Your task to perform on an android device: What's a good restaurant in Miami? Image 0: 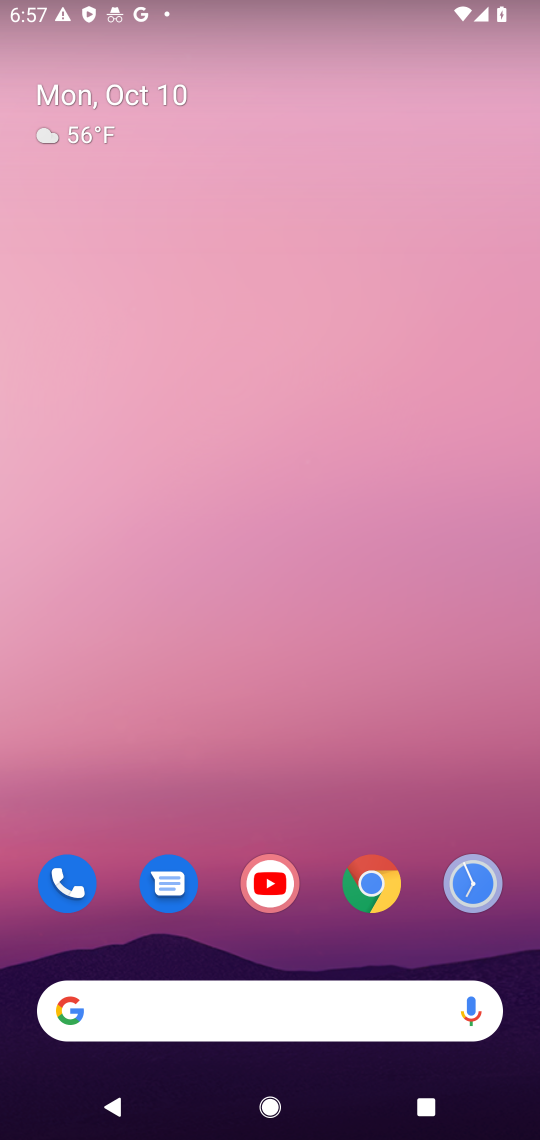
Step 0: drag from (371, 953) to (269, 548)
Your task to perform on an android device: What's a good restaurant in Miami? Image 1: 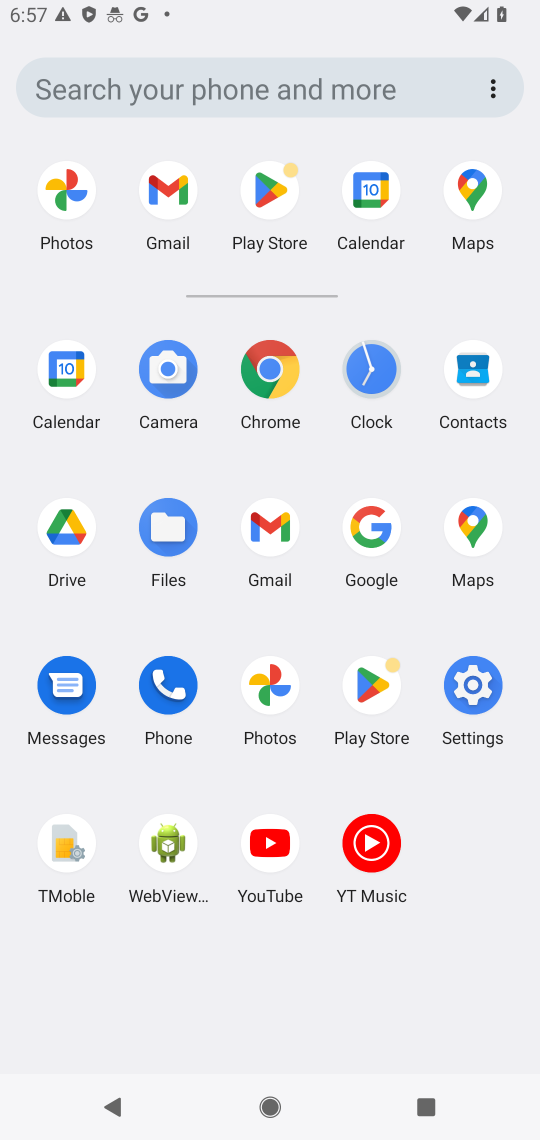
Step 1: click (369, 563)
Your task to perform on an android device: What's a good restaurant in Miami? Image 2: 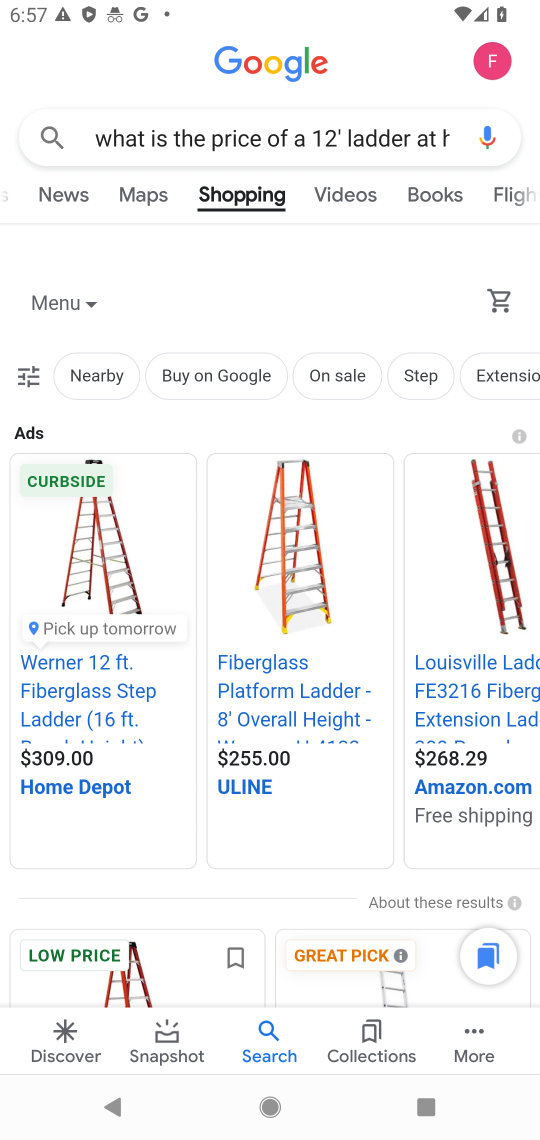
Step 2: click (343, 140)
Your task to perform on an android device: What's a good restaurant in Miami? Image 3: 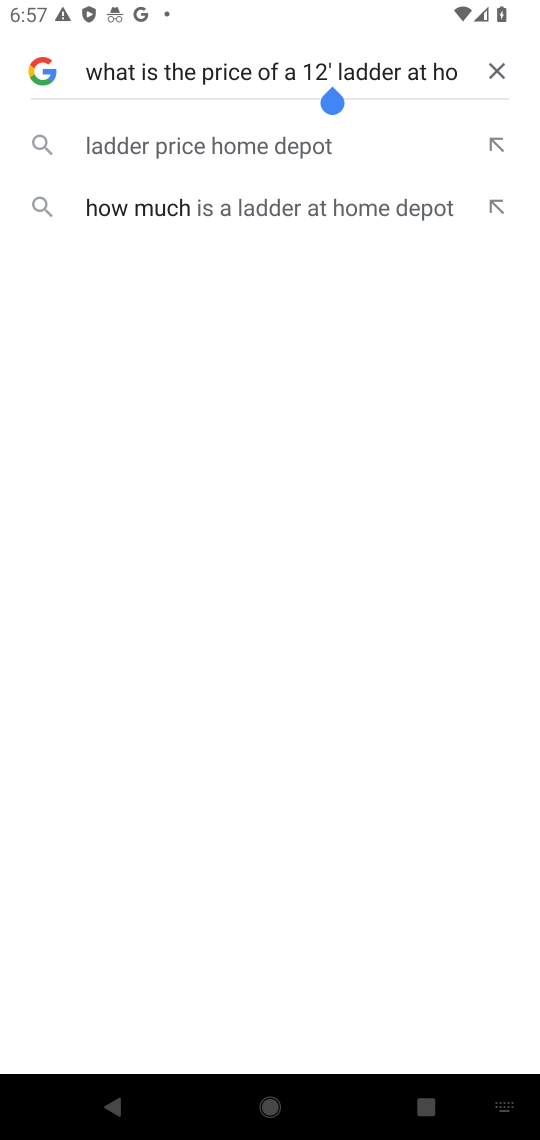
Step 3: click (504, 79)
Your task to perform on an android device: What's a good restaurant in Miami? Image 4: 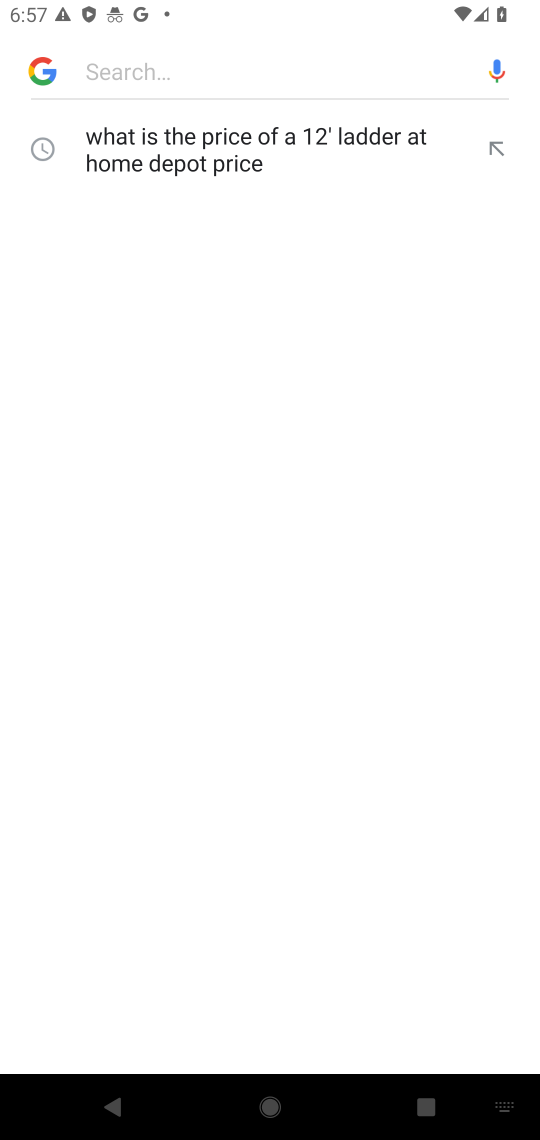
Step 4: type "good restaurant in Miami"
Your task to perform on an android device: What's a good restaurant in Miami? Image 5: 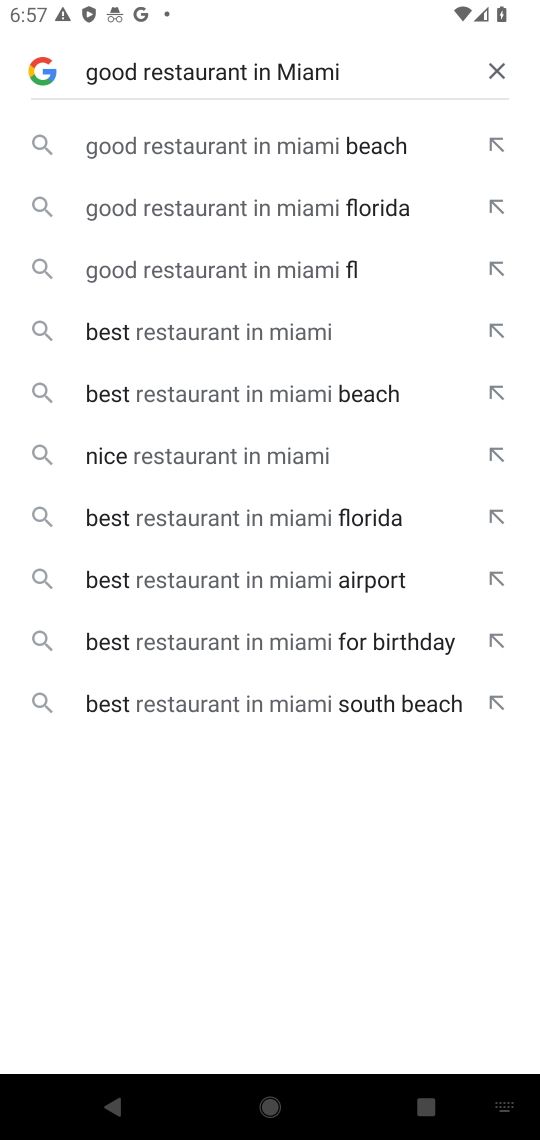
Step 5: click (325, 218)
Your task to perform on an android device: What's a good restaurant in Miami? Image 6: 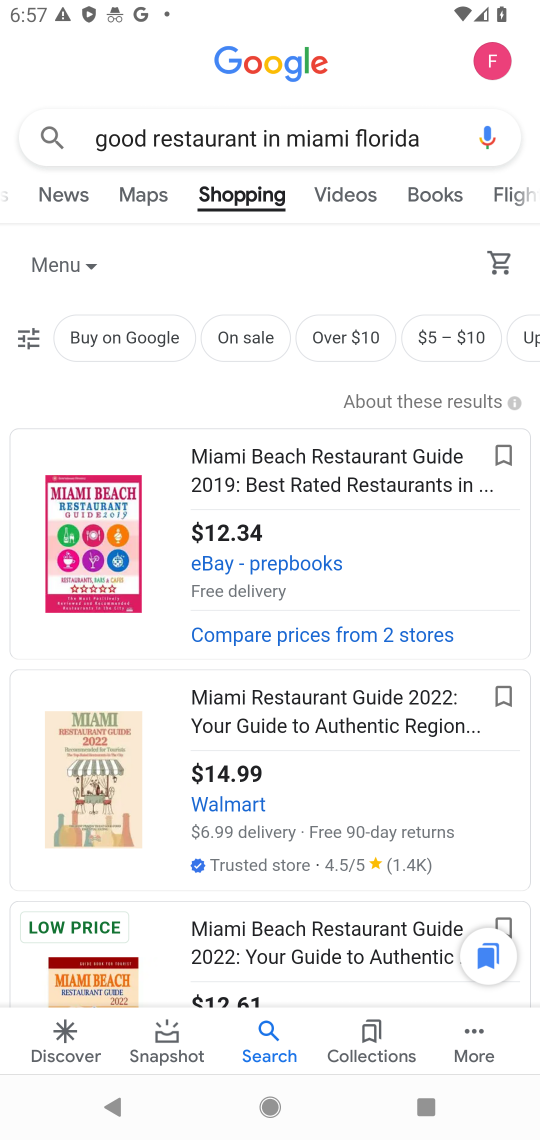
Step 6: drag from (78, 193) to (473, 232)
Your task to perform on an android device: What's a good restaurant in Miami? Image 7: 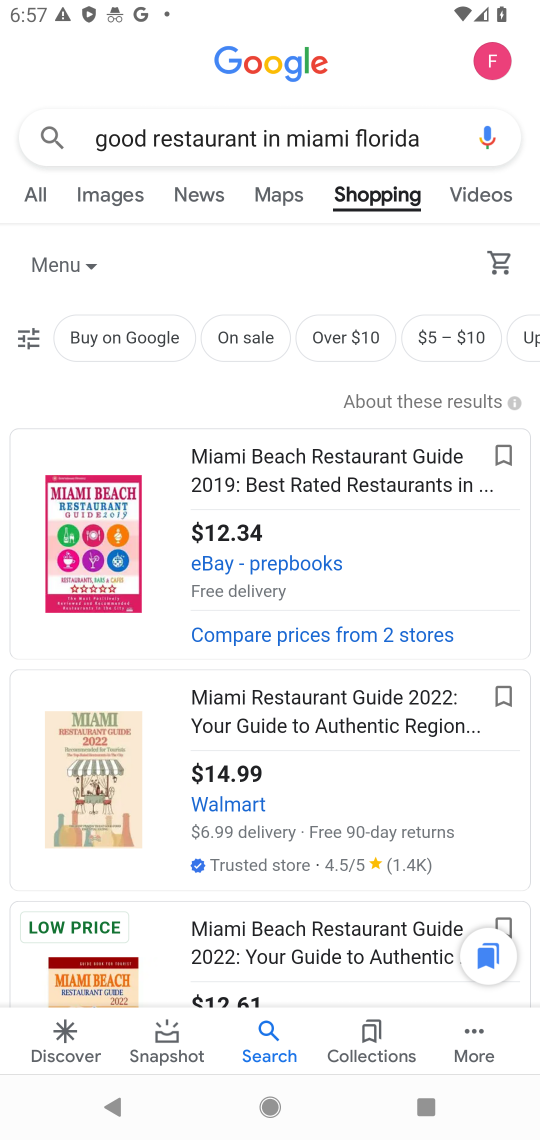
Step 7: click (44, 194)
Your task to perform on an android device: What's a good restaurant in Miami? Image 8: 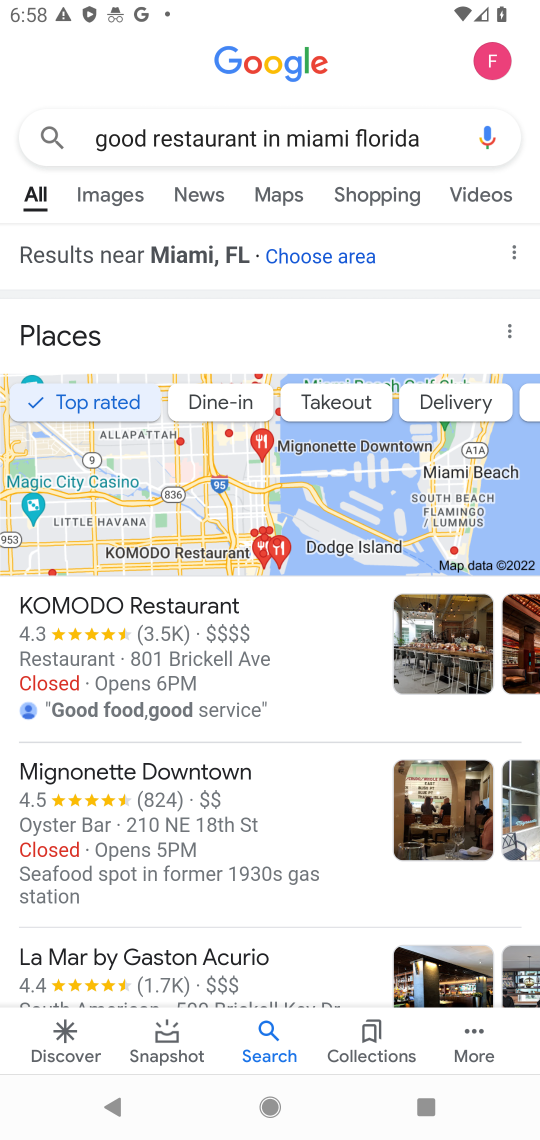
Step 8: task complete